Your task to perform on an android device: Open maps Image 0: 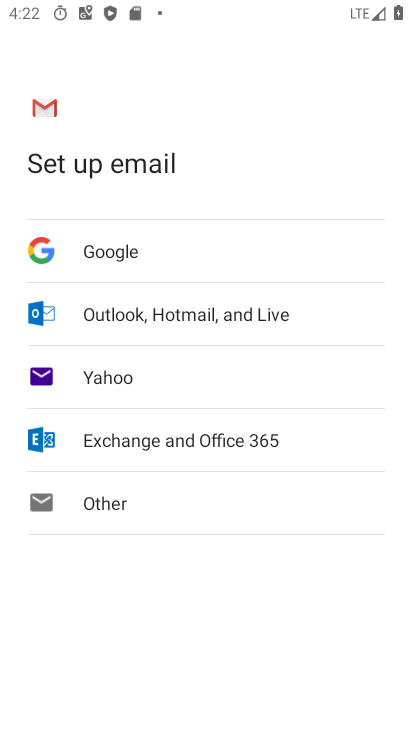
Step 0: press home button
Your task to perform on an android device: Open maps Image 1: 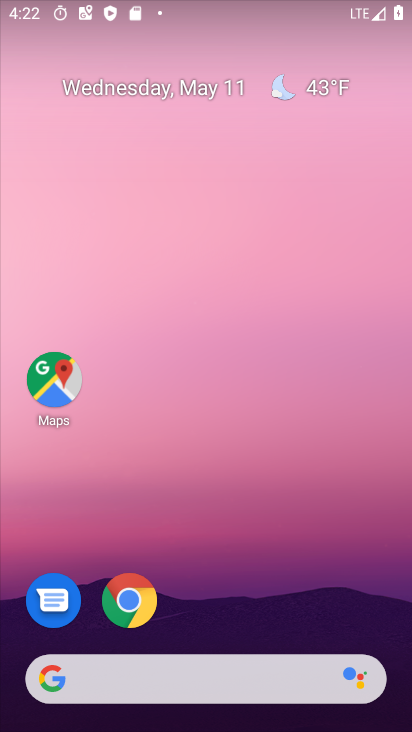
Step 1: click (52, 388)
Your task to perform on an android device: Open maps Image 2: 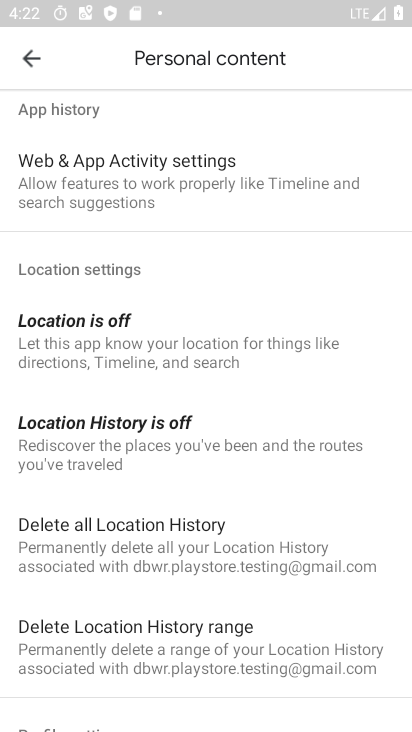
Step 2: click (26, 55)
Your task to perform on an android device: Open maps Image 3: 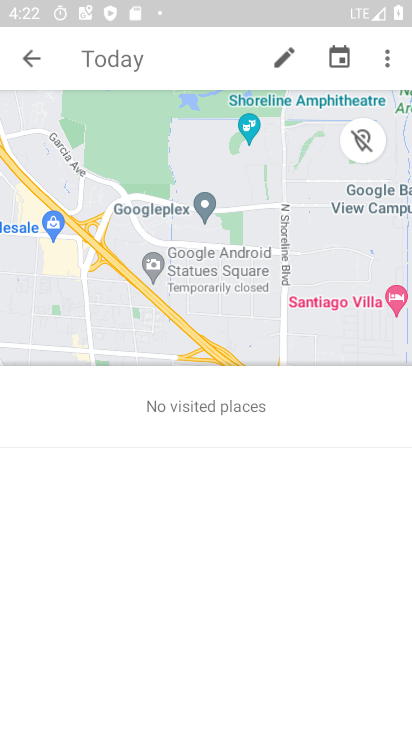
Step 3: task complete